Your task to perform on an android device: Go to Android settings Image 0: 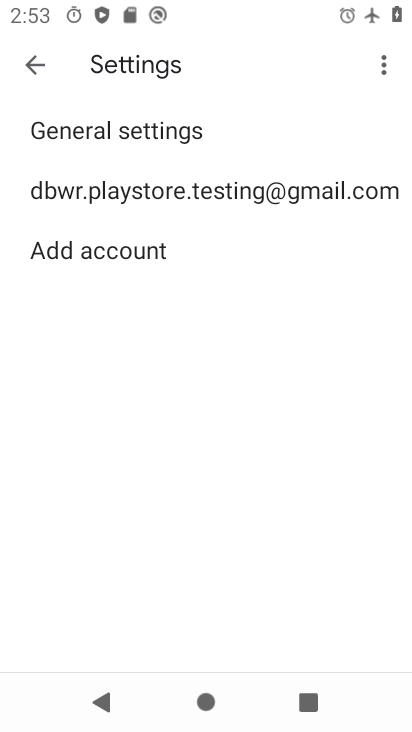
Step 0: drag from (340, 528) to (350, 467)
Your task to perform on an android device: Go to Android settings Image 1: 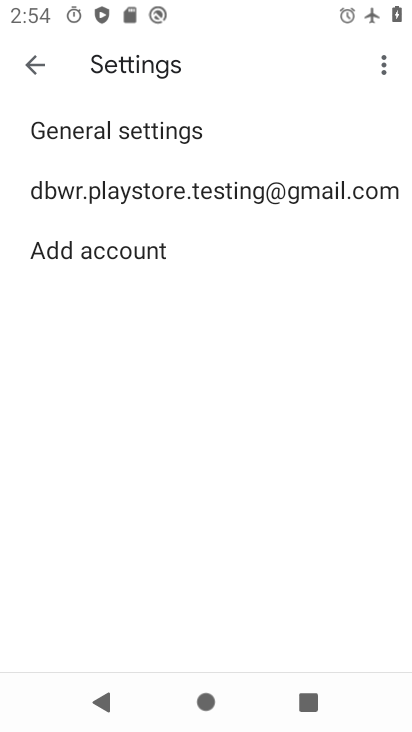
Step 1: press home button
Your task to perform on an android device: Go to Android settings Image 2: 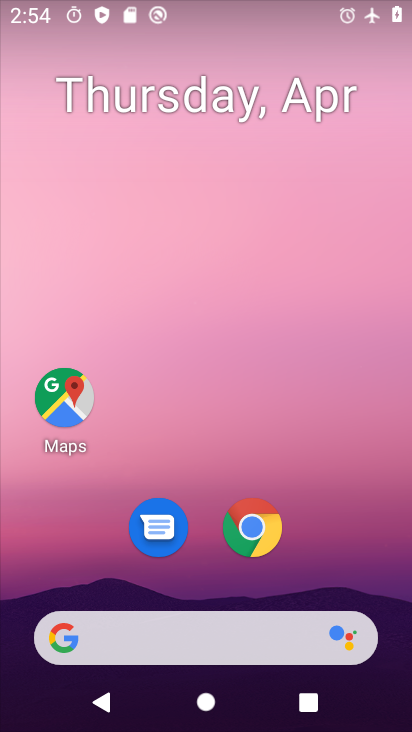
Step 2: drag from (333, 356) to (313, 106)
Your task to perform on an android device: Go to Android settings Image 3: 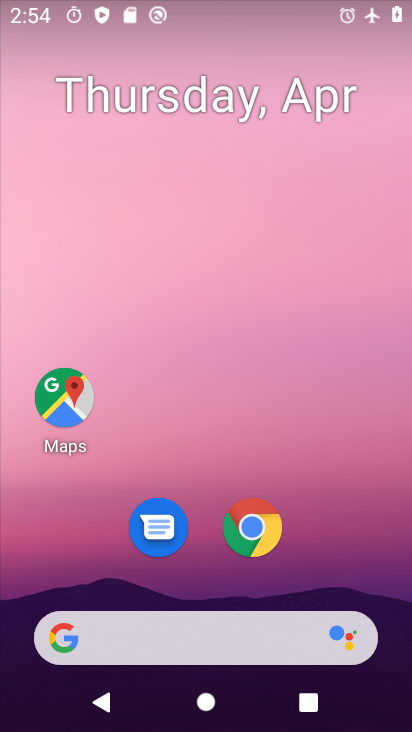
Step 3: drag from (361, 393) to (315, 27)
Your task to perform on an android device: Go to Android settings Image 4: 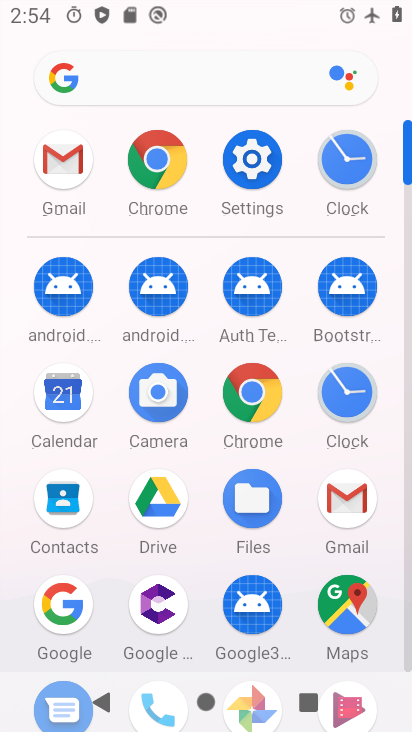
Step 4: click (258, 173)
Your task to perform on an android device: Go to Android settings Image 5: 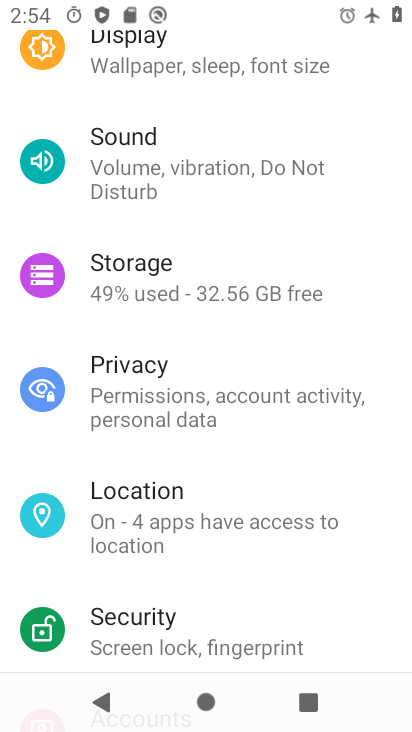
Step 5: task complete